Your task to perform on an android device: open wifi settings Image 0: 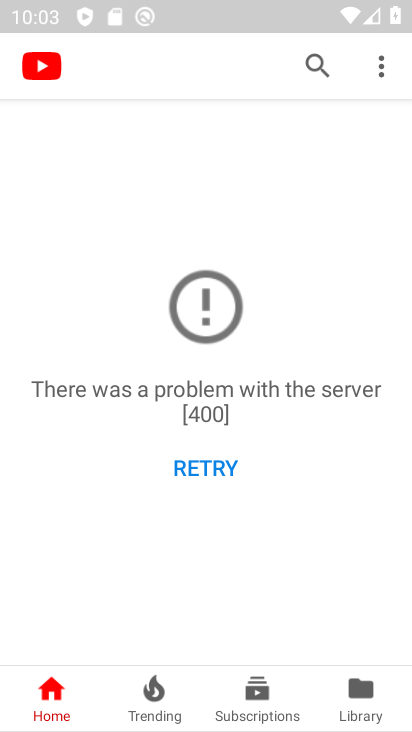
Step 0: press home button
Your task to perform on an android device: open wifi settings Image 1: 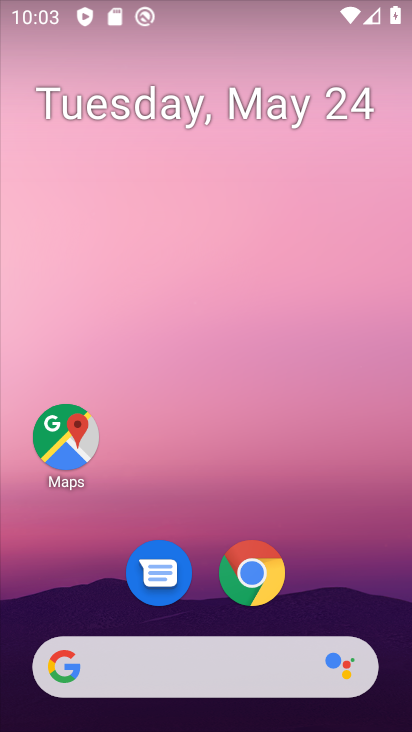
Step 1: drag from (353, 583) to (154, 9)
Your task to perform on an android device: open wifi settings Image 2: 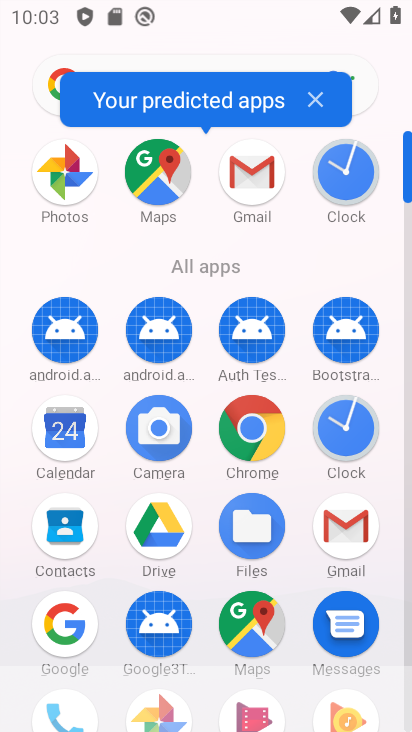
Step 2: click (404, 651)
Your task to perform on an android device: open wifi settings Image 3: 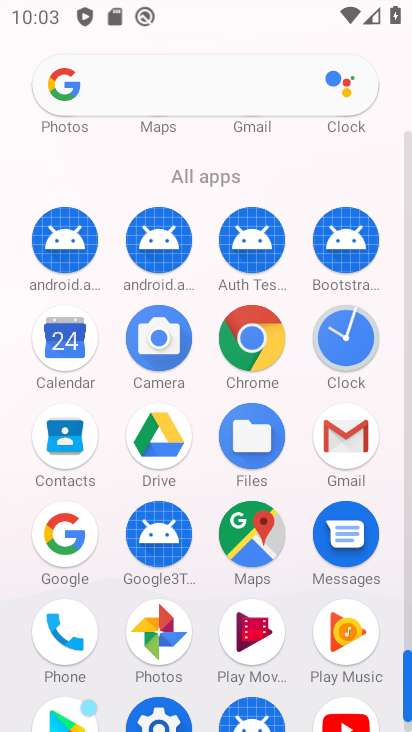
Step 3: click (169, 714)
Your task to perform on an android device: open wifi settings Image 4: 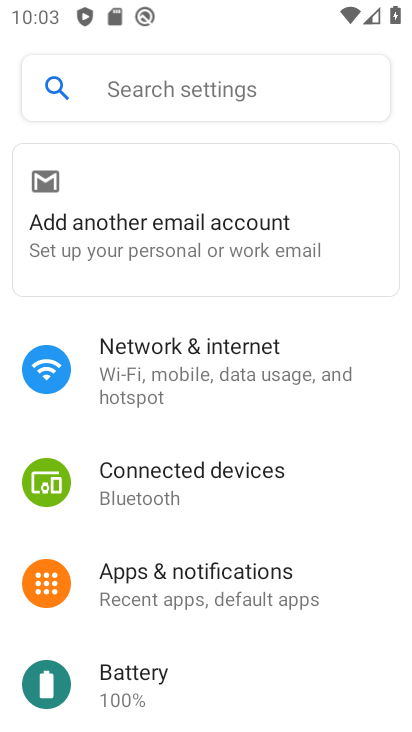
Step 4: click (201, 389)
Your task to perform on an android device: open wifi settings Image 5: 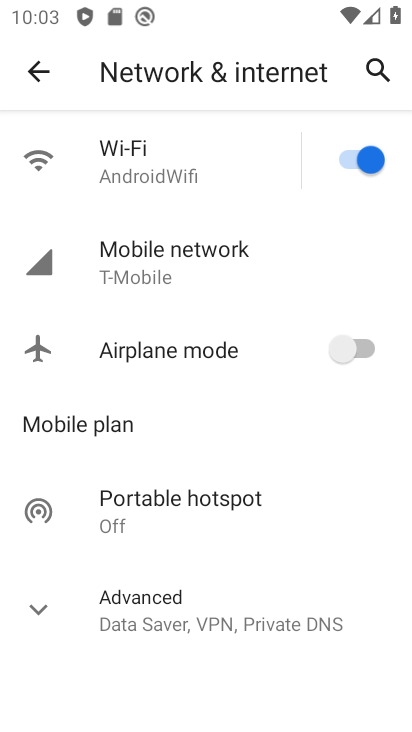
Step 5: click (89, 150)
Your task to perform on an android device: open wifi settings Image 6: 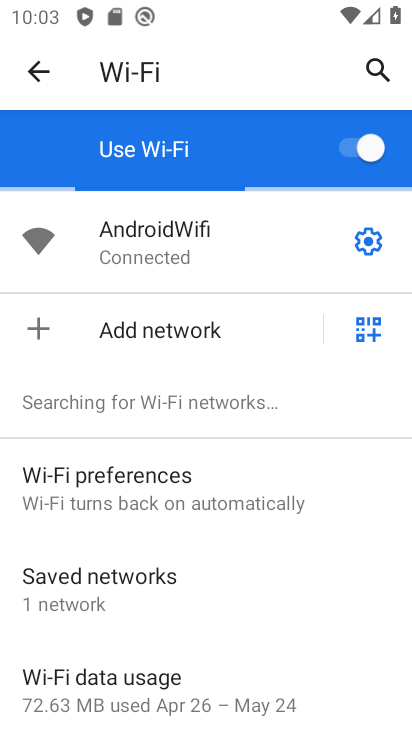
Step 6: task complete